Your task to perform on an android device: search for starred emails in the gmail app Image 0: 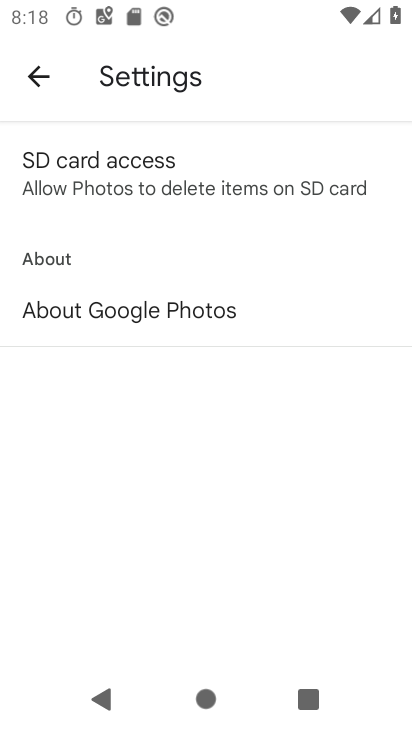
Step 0: press home button
Your task to perform on an android device: search for starred emails in the gmail app Image 1: 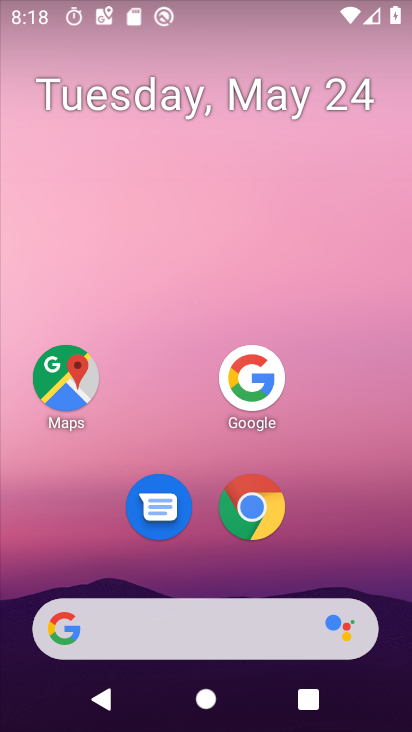
Step 1: drag from (179, 642) to (294, 222)
Your task to perform on an android device: search for starred emails in the gmail app Image 2: 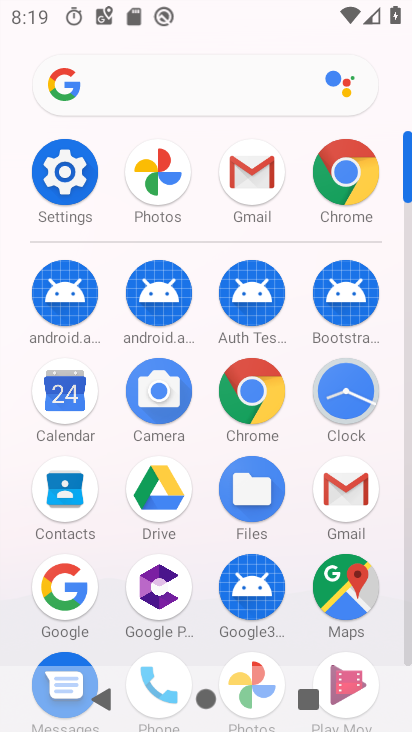
Step 2: click (243, 186)
Your task to perform on an android device: search for starred emails in the gmail app Image 3: 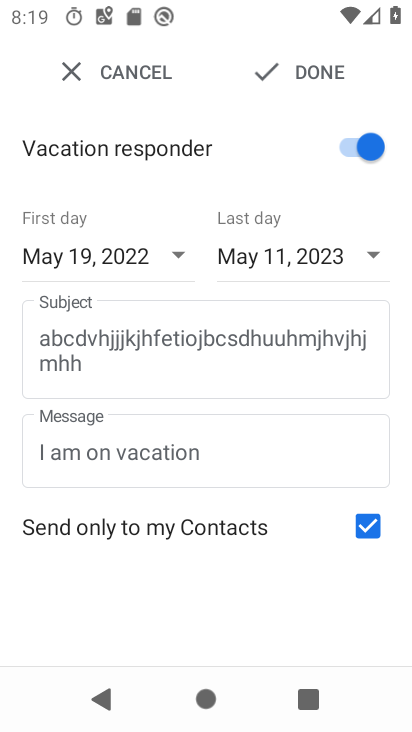
Step 3: click (71, 77)
Your task to perform on an android device: search for starred emails in the gmail app Image 4: 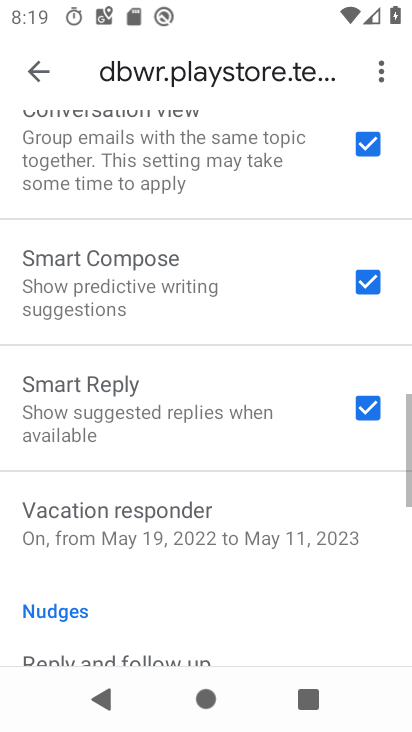
Step 4: click (41, 82)
Your task to perform on an android device: search for starred emails in the gmail app Image 5: 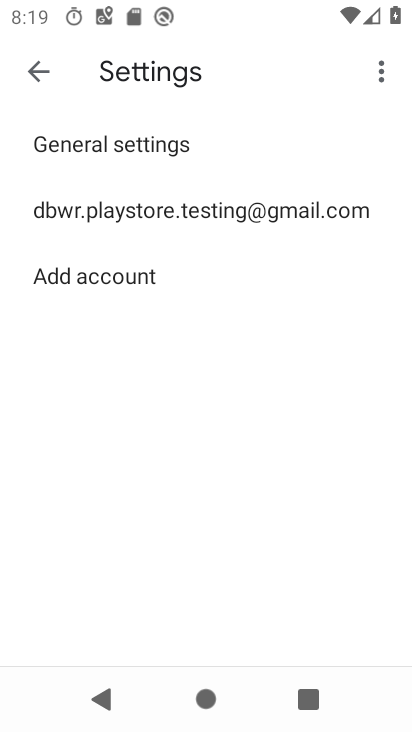
Step 5: click (41, 82)
Your task to perform on an android device: search for starred emails in the gmail app Image 6: 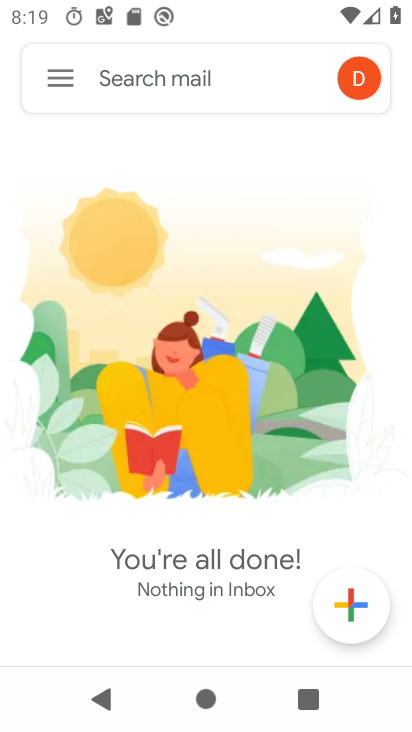
Step 6: click (60, 71)
Your task to perform on an android device: search for starred emails in the gmail app Image 7: 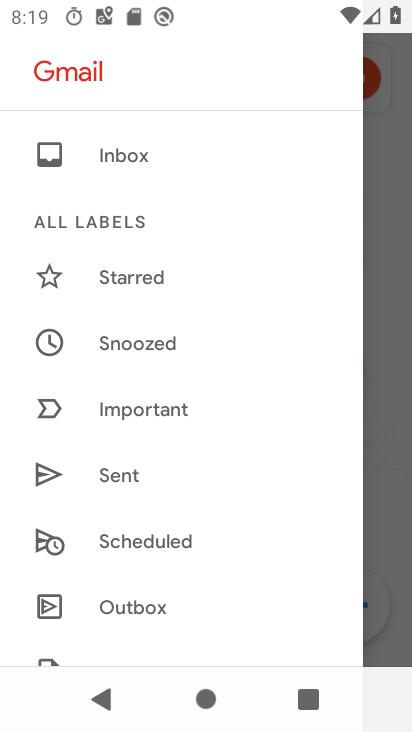
Step 7: click (136, 282)
Your task to perform on an android device: search for starred emails in the gmail app Image 8: 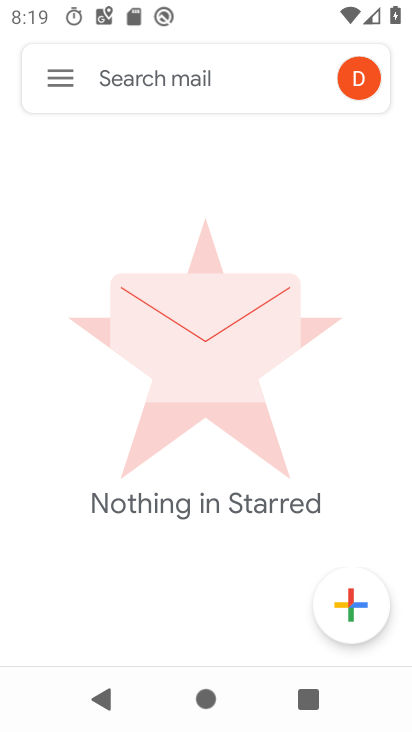
Step 8: task complete